Your task to perform on an android device: see creations saved in the google photos Image 0: 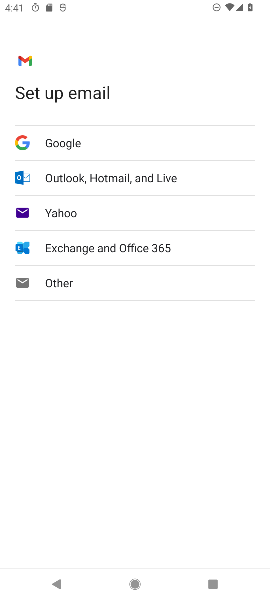
Step 0: press home button
Your task to perform on an android device: see creations saved in the google photos Image 1: 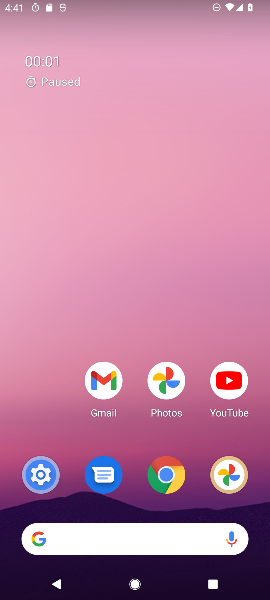
Step 1: click (157, 375)
Your task to perform on an android device: see creations saved in the google photos Image 2: 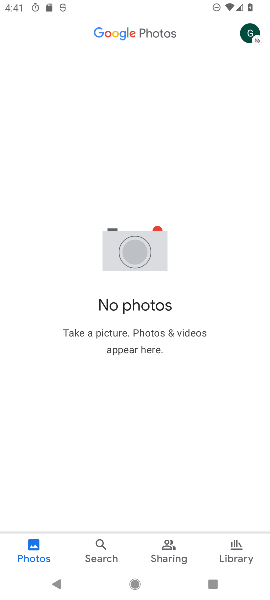
Step 2: task complete